Your task to perform on an android device: turn off data saver in the chrome app Image 0: 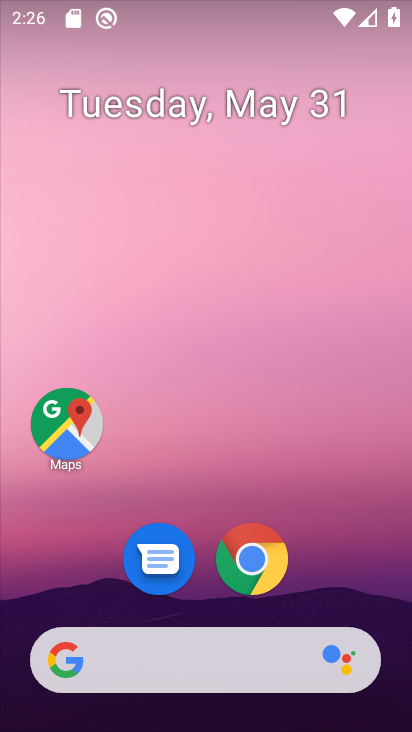
Step 0: drag from (242, 500) to (303, 2)
Your task to perform on an android device: turn off data saver in the chrome app Image 1: 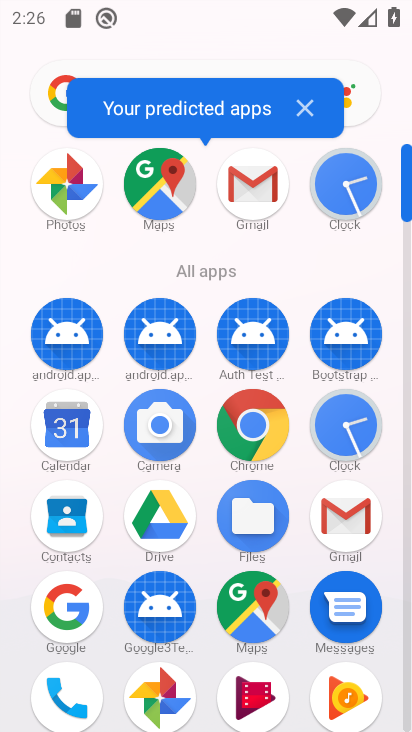
Step 1: click (264, 411)
Your task to perform on an android device: turn off data saver in the chrome app Image 2: 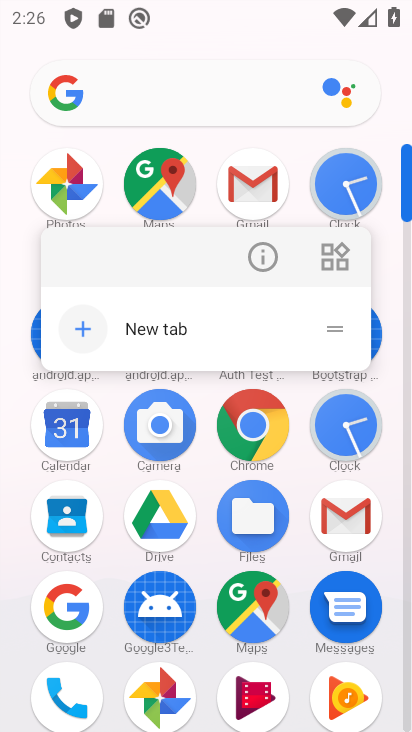
Step 2: click (255, 440)
Your task to perform on an android device: turn off data saver in the chrome app Image 3: 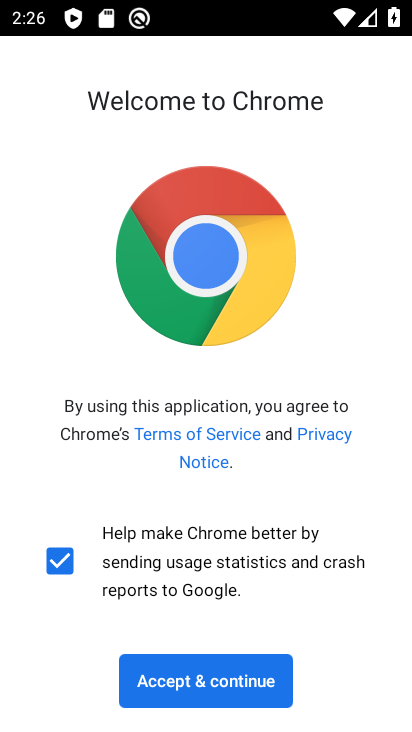
Step 3: click (238, 685)
Your task to perform on an android device: turn off data saver in the chrome app Image 4: 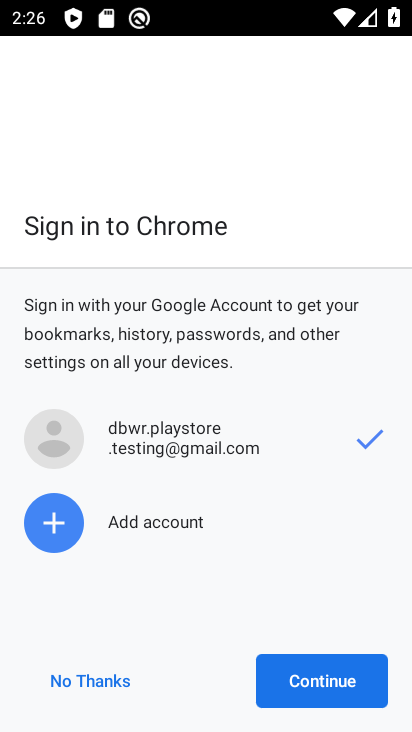
Step 4: click (356, 681)
Your task to perform on an android device: turn off data saver in the chrome app Image 5: 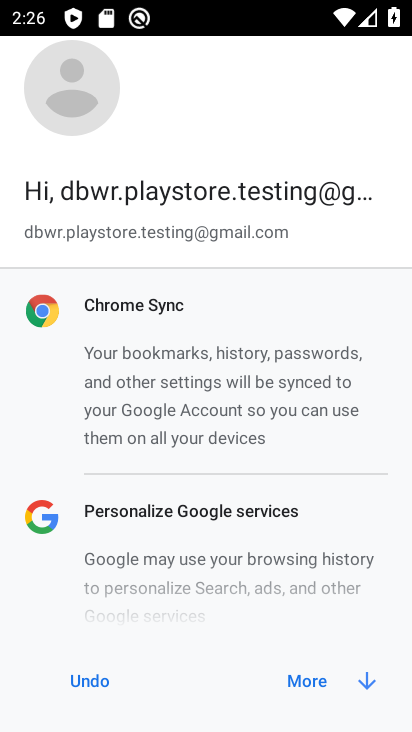
Step 5: click (356, 681)
Your task to perform on an android device: turn off data saver in the chrome app Image 6: 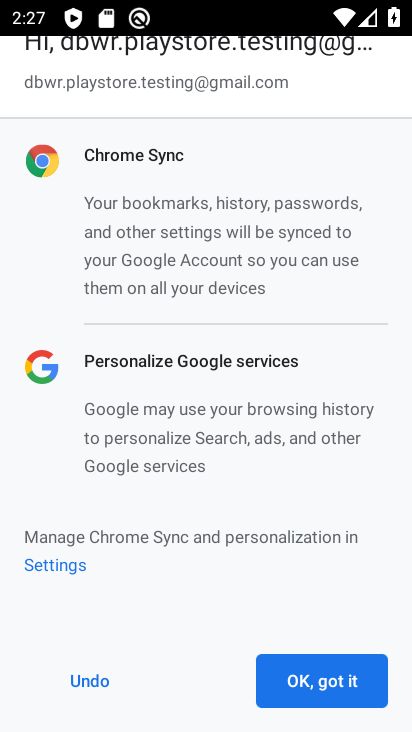
Step 6: click (356, 681)
Your task to perform on an android device: turn off data saver in the chrome app Image 7: 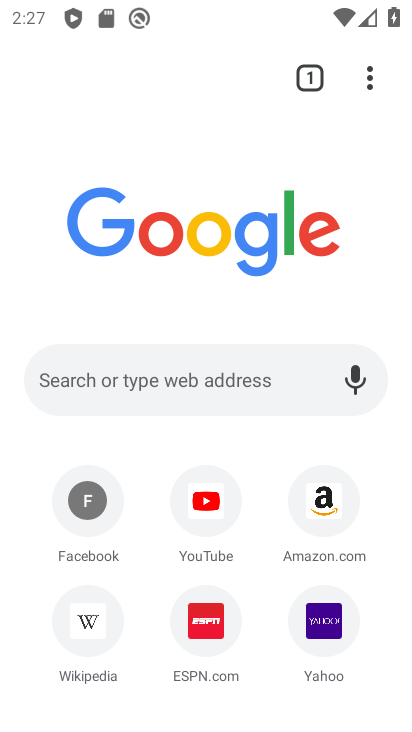
Step 7: click (365, 85)
Your task to perform on an android device: turn off data saver in the chrome app Image 8: 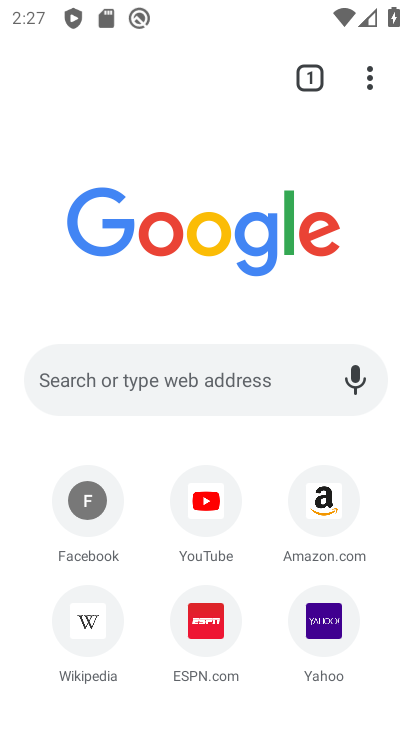
Step 8: click (378, 72)
Your task to perform on an android device: turn off data saver in the chrome app Image 9: 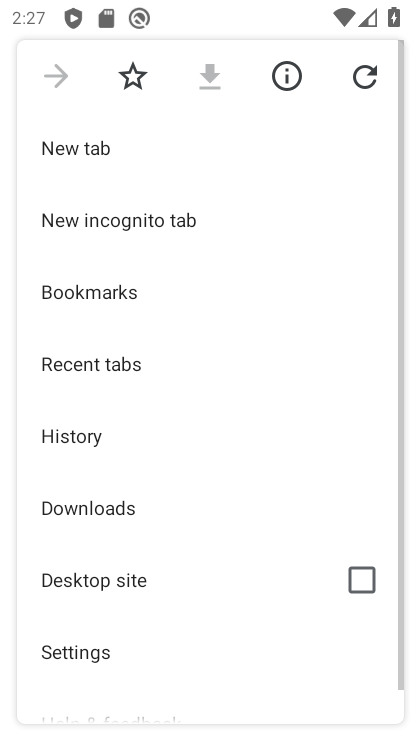
Step 9: drag from (311, 509) to (197, 185)
Your task to perform on an android device: turn off data saver in the chrome app Image 10: 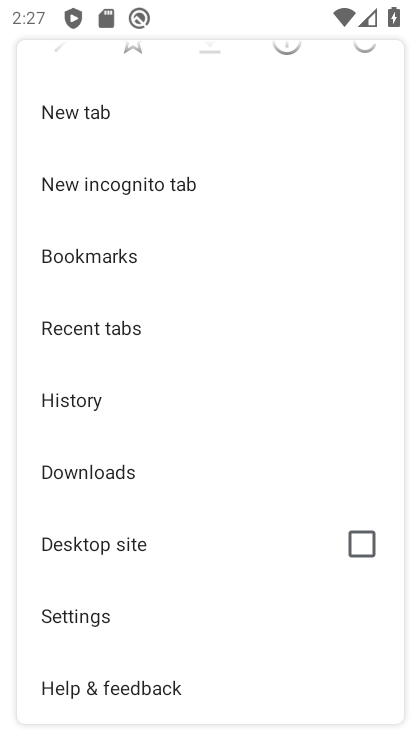
Step 10: click (117, 627)
Your task to perform on an android device: turn off data saver in the chrome app Image 11: 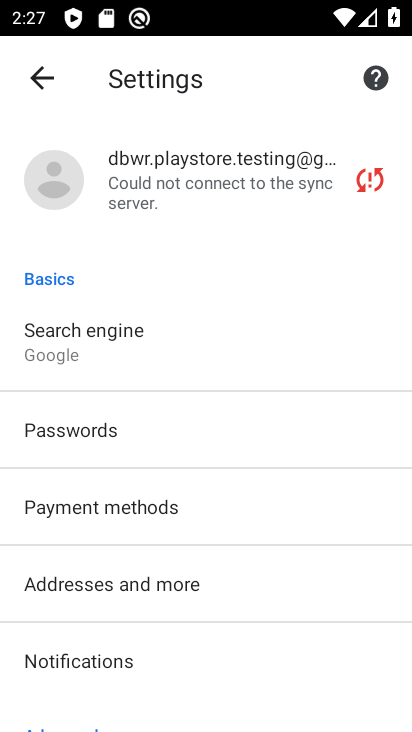
Step 11: task complete